Your task to perform on an android device: refresh tabs in the chrome app Image 0: 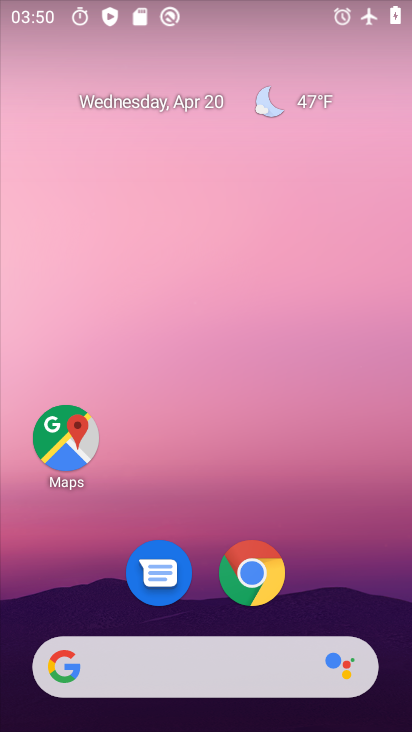
Step 0: click (251, 574)
Your task to perform on an android device: refresh tabs in the chrome app Image 1: 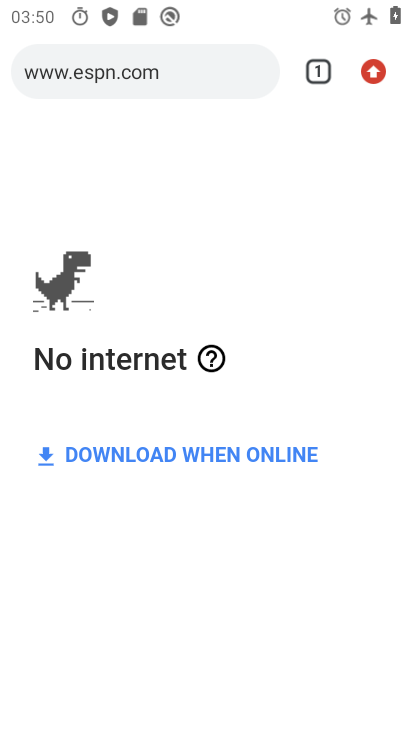
Step 1: click (374, 75)
Your task to perform on an android device: refresh tabs in the chrome app Image 2: 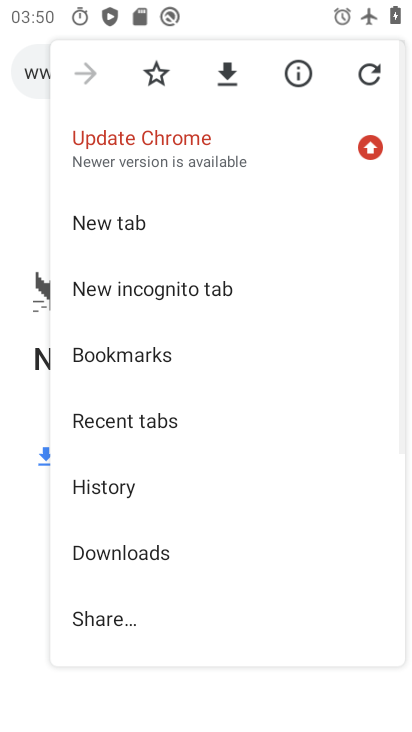
Step 2: click (374, 64)
Your task to perform on an android device: refresh tabs in the chrome app Image 3: 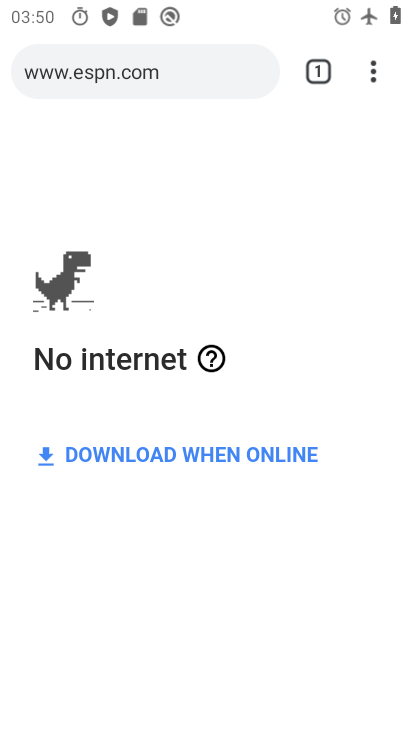
Step 3: task complete